Your task to perform on an android device: When is my next meeting? Image 0: 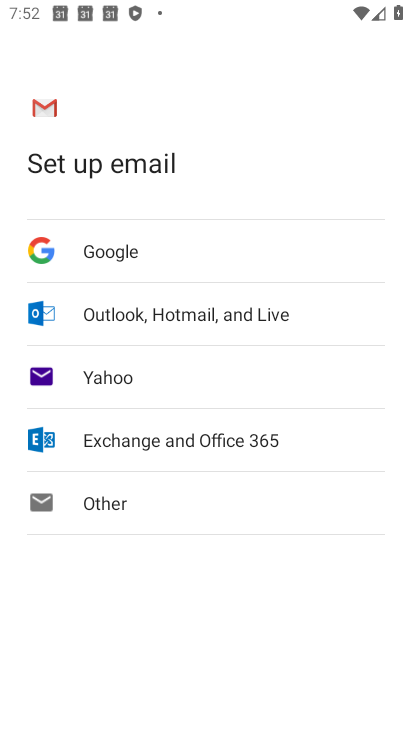
Step 0: press home button
Your task to perform on an android device: When is my next meeting? Image 1: 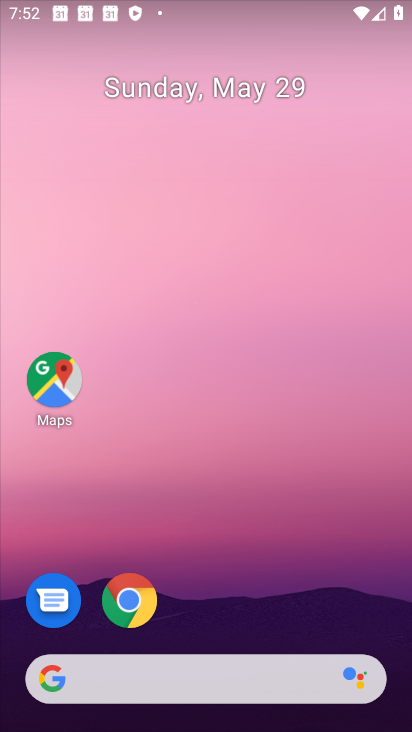
Step 1: drag from (355, 594) to (364, 160)
Your task to perform on an android device: When is my next meeting? Image 2: 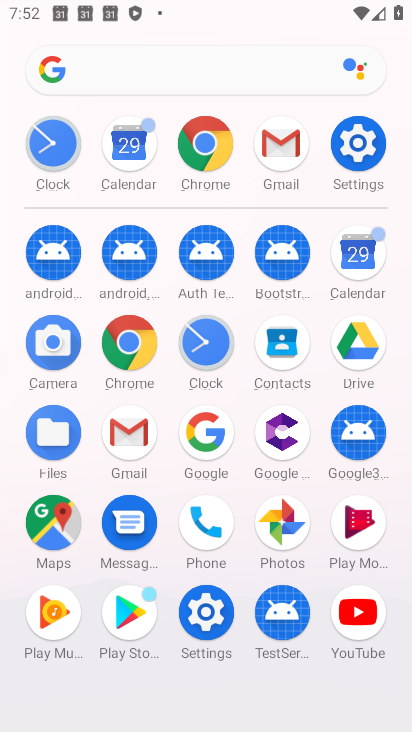
Step 2: click (352, 260)
Your task to perform on an android device: When is my next meeting? Image 3: 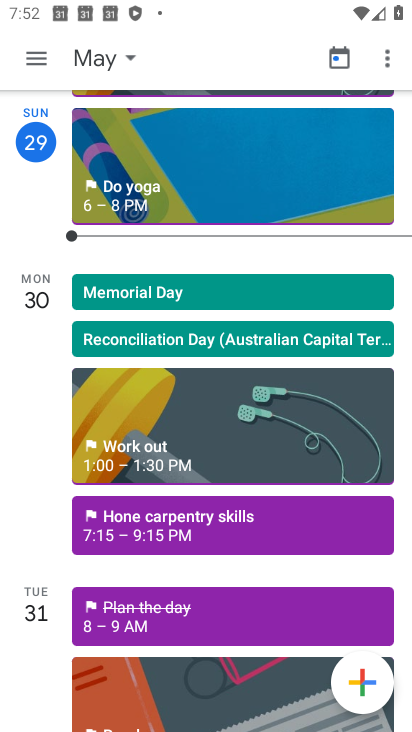
Step 3: click (94, 59)
Your task to perform on an android device: When is my next meeting? Image 4: 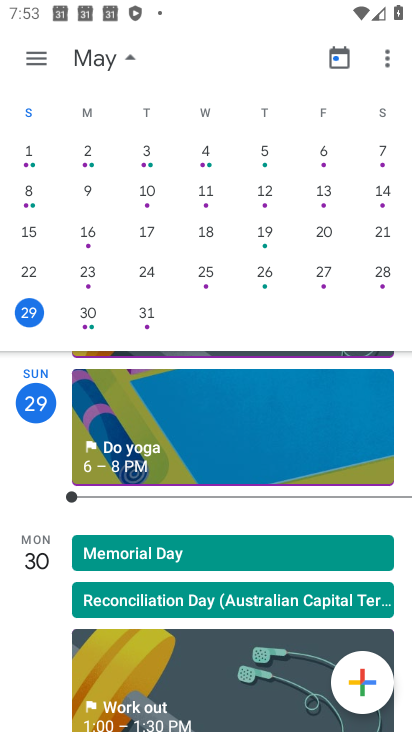
Step 4: task complete